Your task to perform on an android device: Open the web browser Image 0: 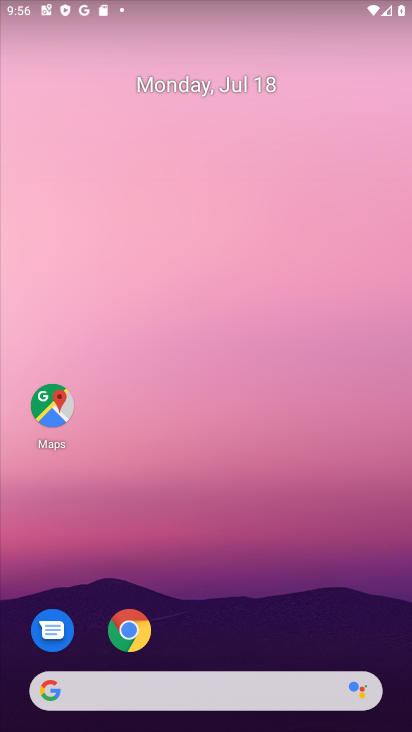
Step 0: drag from (340, 653) to (292, 48)
Your task to perform on an android device: Open the web browser Image 1: 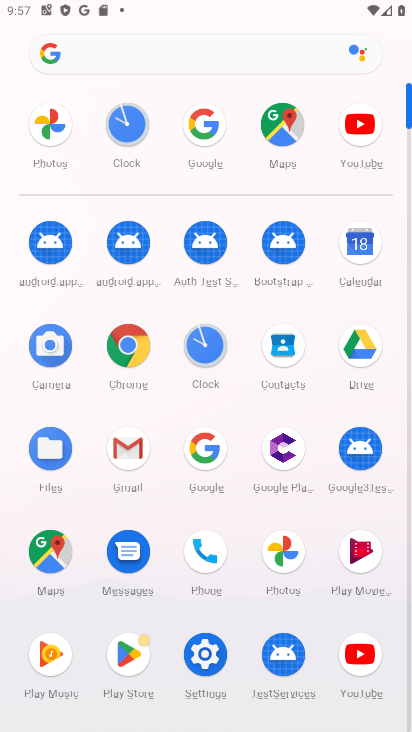
Step 1: click (194, 436)
Your task to perform on an android device: Open the web browser Image 2: 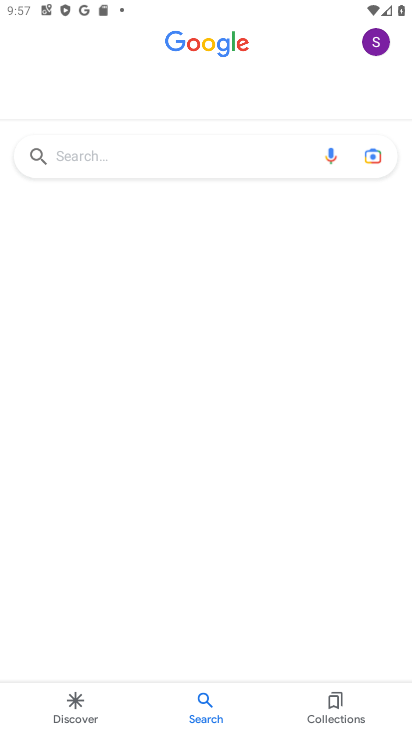
Step 2: click (124, 168)
Your task to perform on an android device: Open the web browser Image 3: 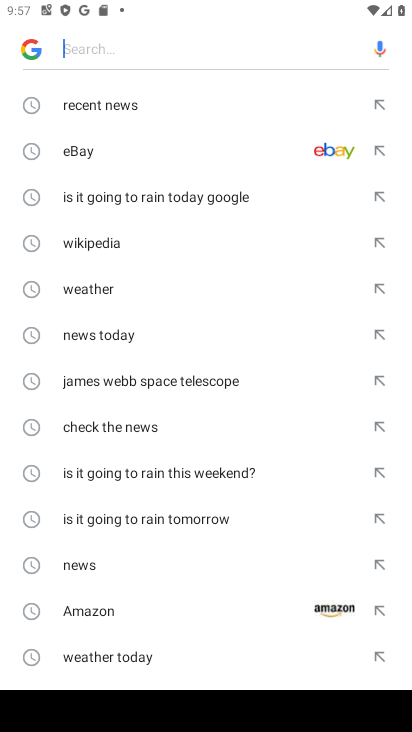
Step 3: drag from (122, 559) to (124, 109)
Your task to perform on an android device: Open the web browser Image 4: 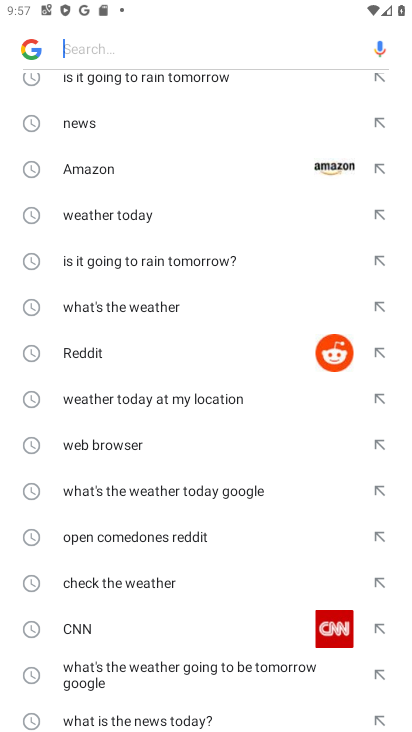
Step 4: click (127, 449)
Your task to perform on an android device: Open the web browser Image 5: 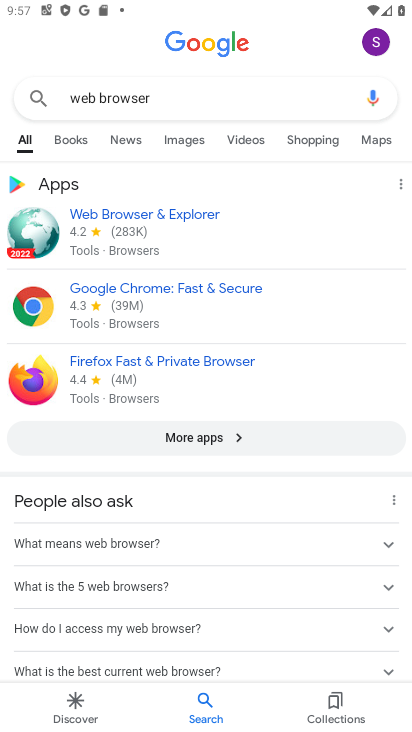
Step 5: task complete